Your task to perform on an android device: Open settings on Google Maps Image 0: 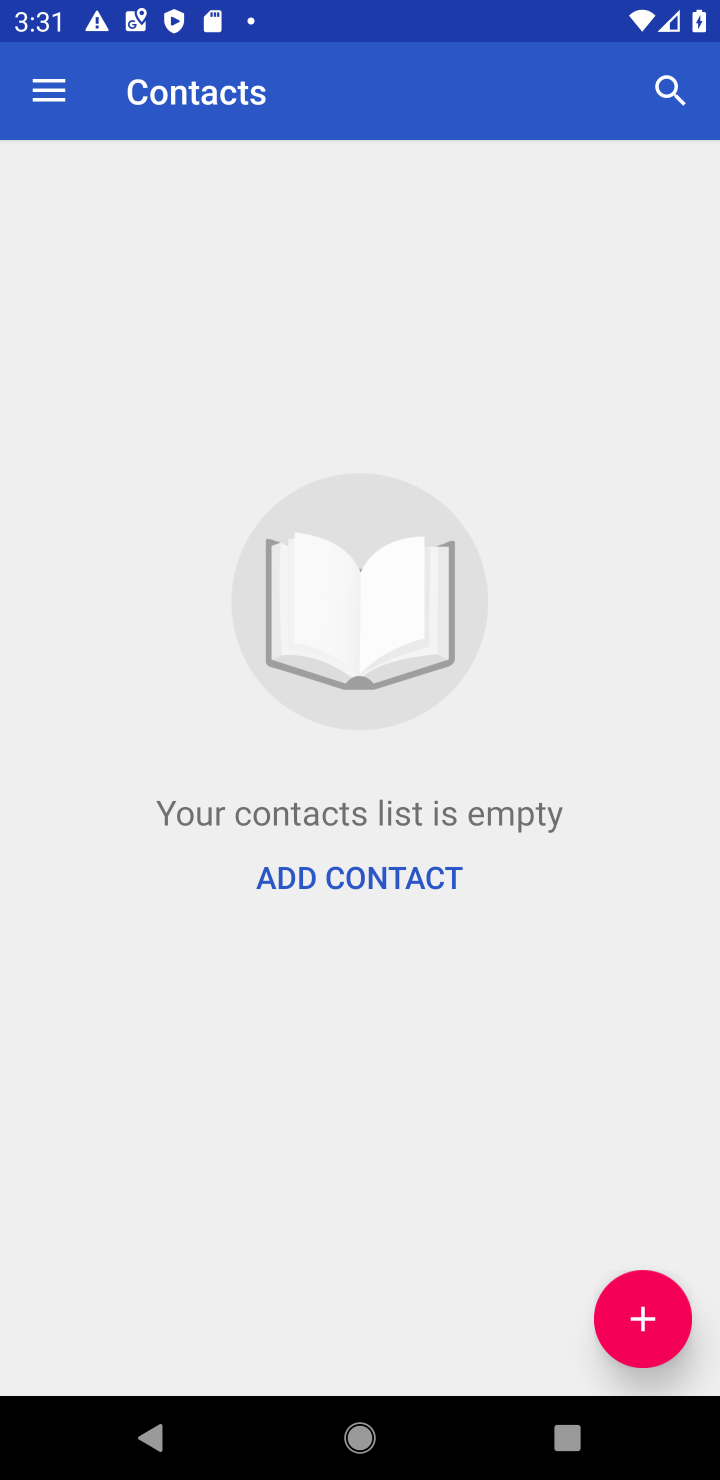
Step 0: press home button
Your task to perform on an android device: Open settings on Google Maps Image 1: 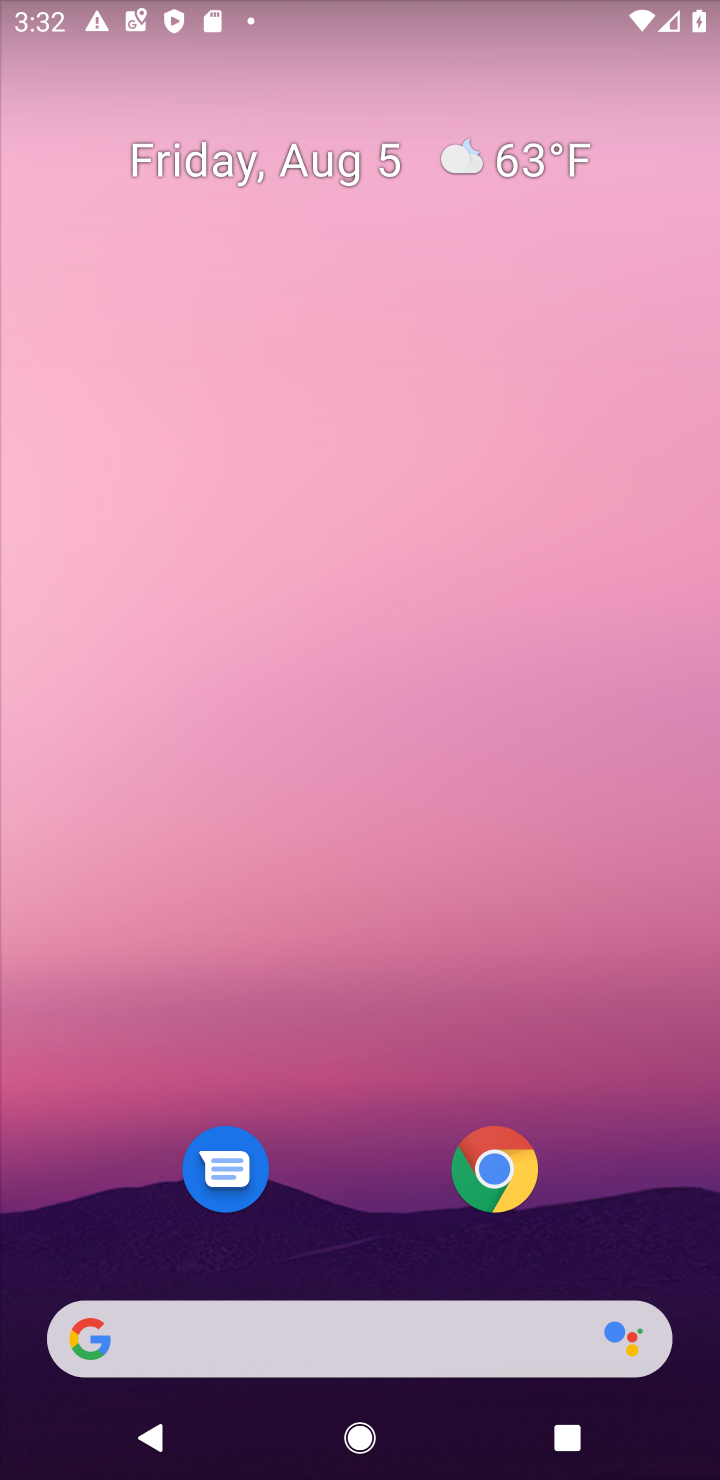
Step 1: click (612, 755)
Your task to perform on an android device: Open settings on Google Maps Image 2: 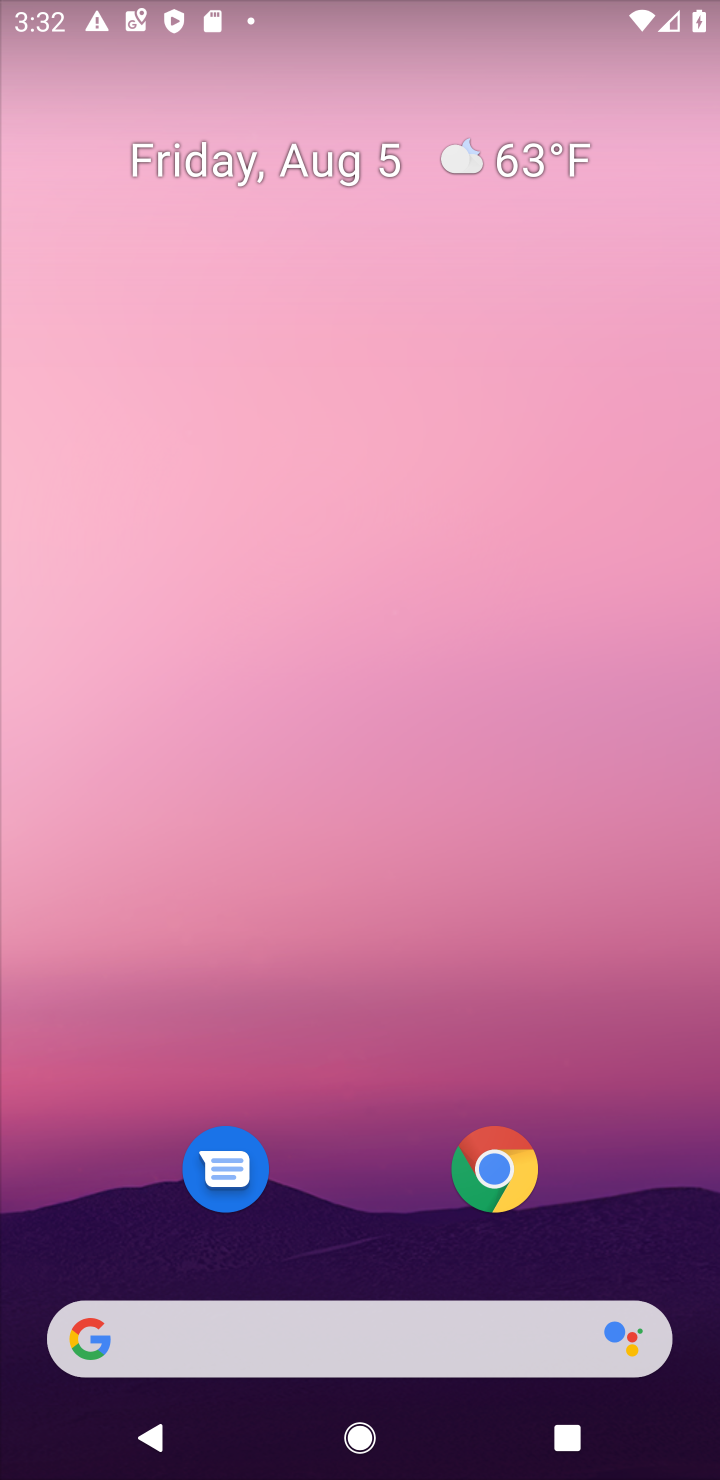
Step 2: drag from (611, 1116) to (260, 230)
Your task to perform on an android device: Open settings on Google Maps Image 3: 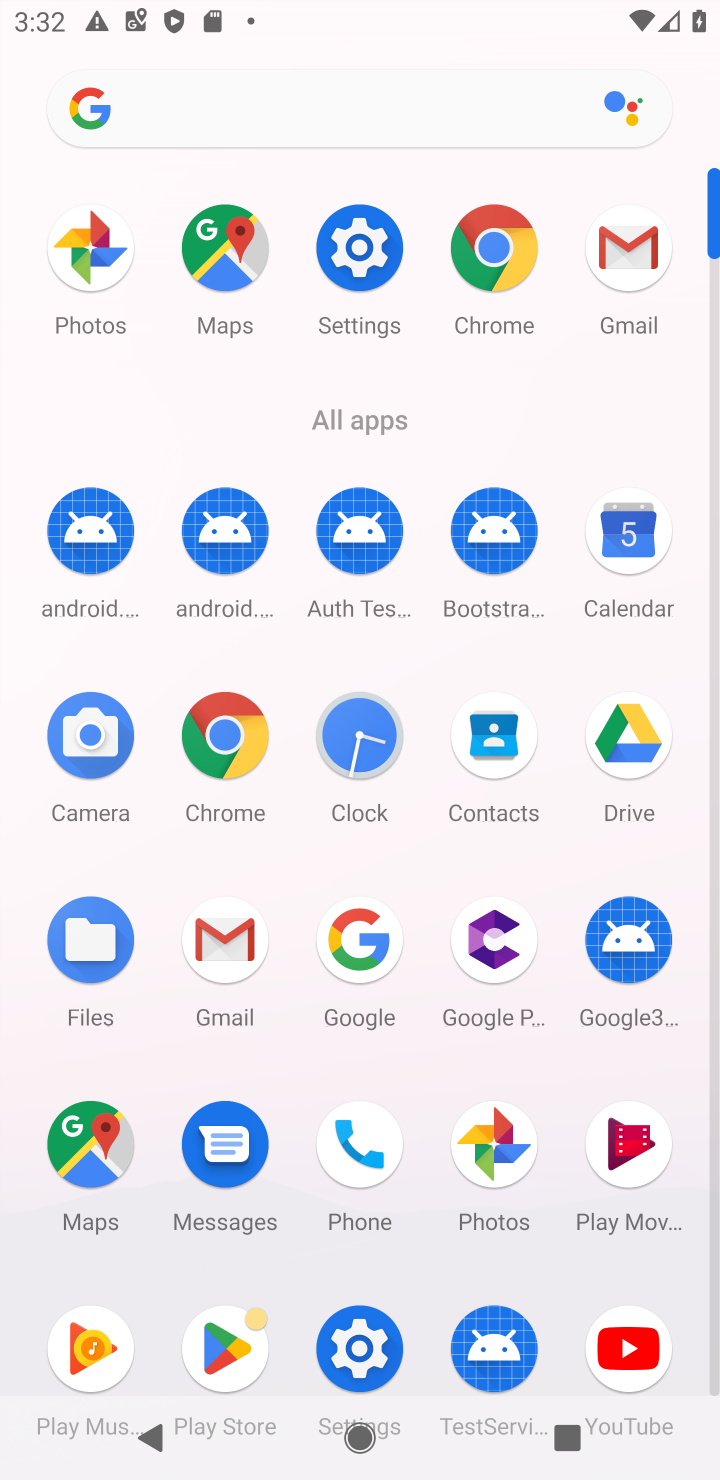
Step 3: click (113, 1127)
Your task to perform on an android device: Open settings on Google Maps Image 4: 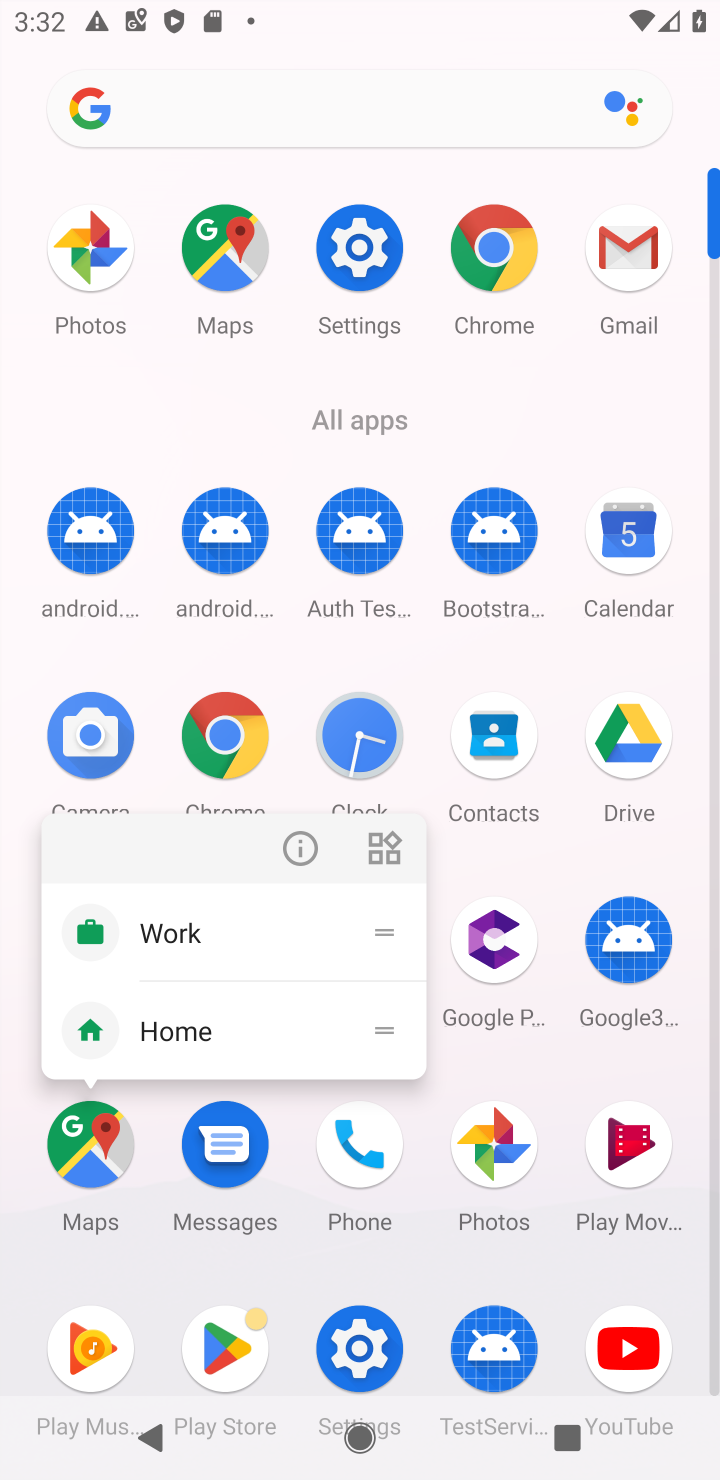
Step 4: click (116, 1137)
Your task to perform on an android device: Open settings on Google Maps Image 5: 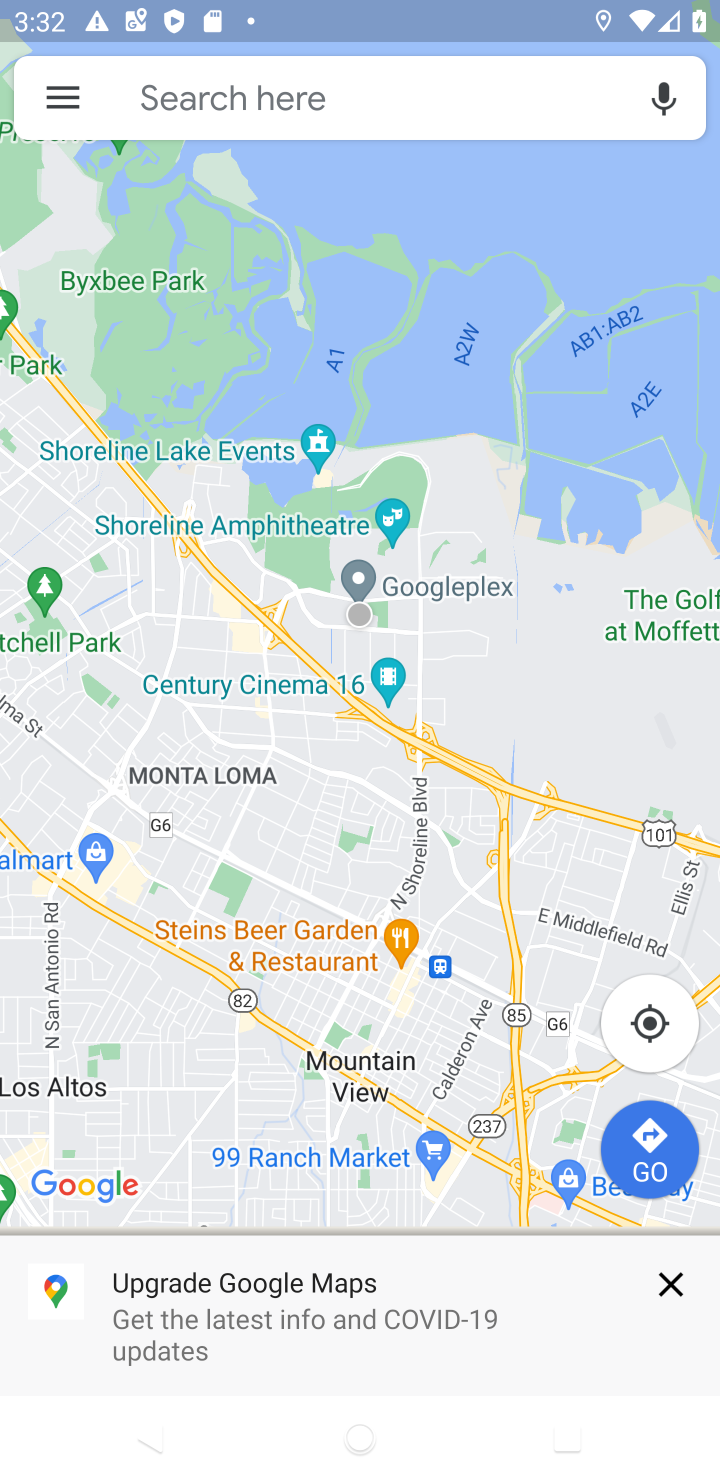
Step 5: click (139, 1132)
Your task to perform on an android device: Open settings on Google Maps Image 6: 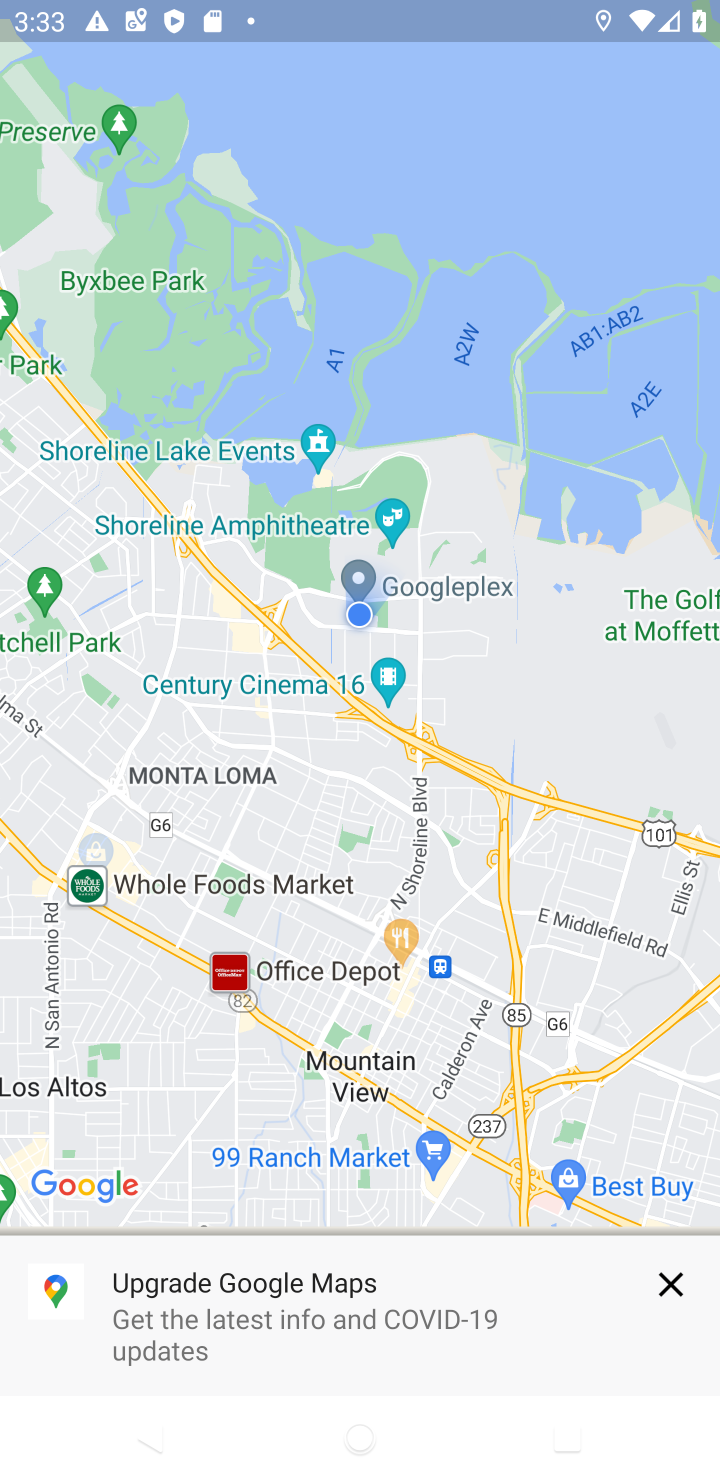
Step 6: task complete